Your task to perform on an android device: Go to sound settings Image 0: 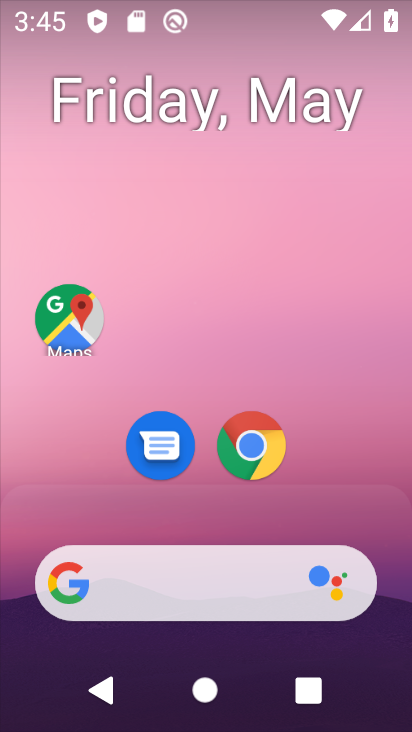
Step 0: drag from (228, 719) to (227, 259)
Your task to perform on an android device: Go to sound settings Image 1: 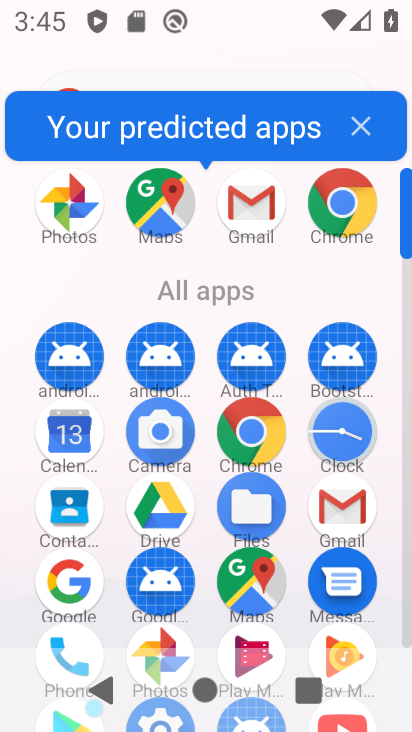
Step 1: drag from (205, 618) to (207, 265)
Your task to perform on an android device: Go to sound settings Image 2: 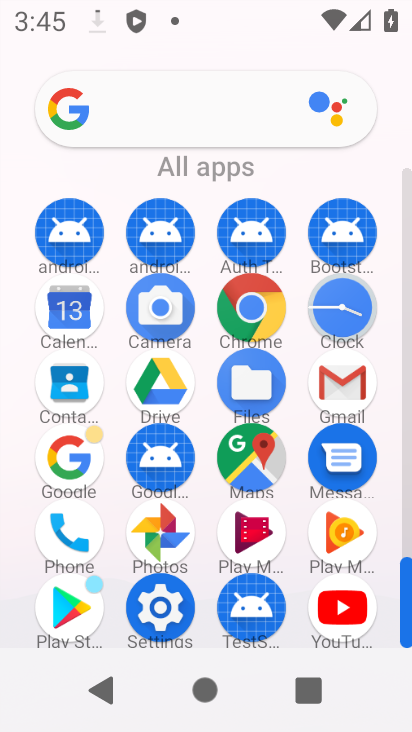
Step 2: click (164, 604)
Your task to perform on an android device: Go to sound settings Image 3: 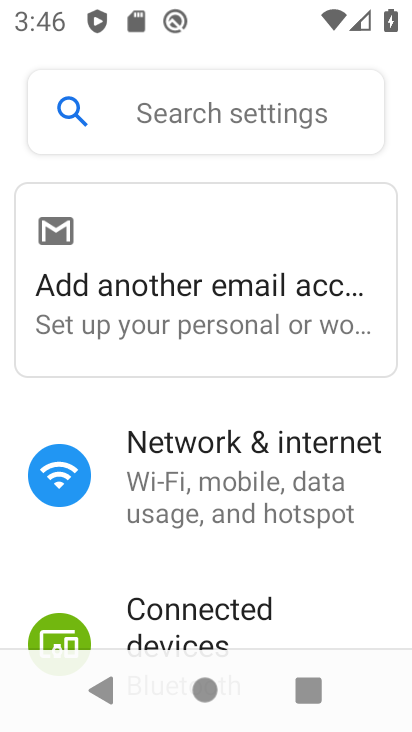
Step 3: drag from (301, 580) to (310, 343)
Your task to perform on an android device: Go to sound settings Image 4: 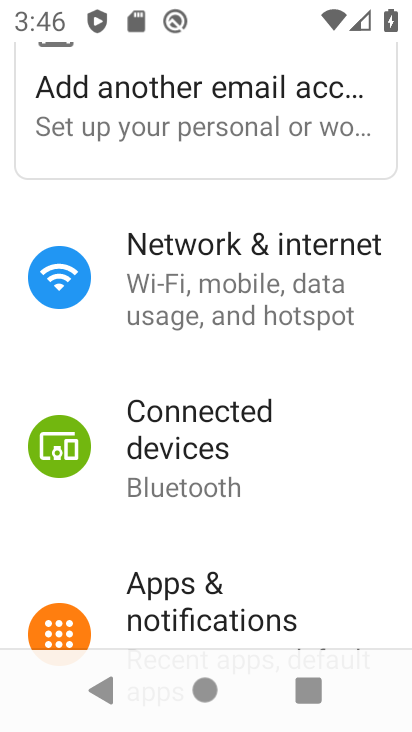
Step 4: drag from (292, 612) to (298, 313)
Your task to perform on an android device: Go to sound settings Image 5: 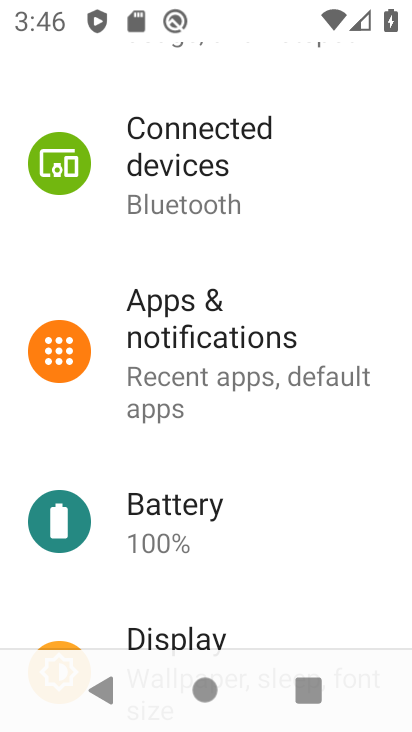
Step 5: drag from (278, 583) to (278, 241)
Your task to perform on an android device: Go to sound settings Image 6: 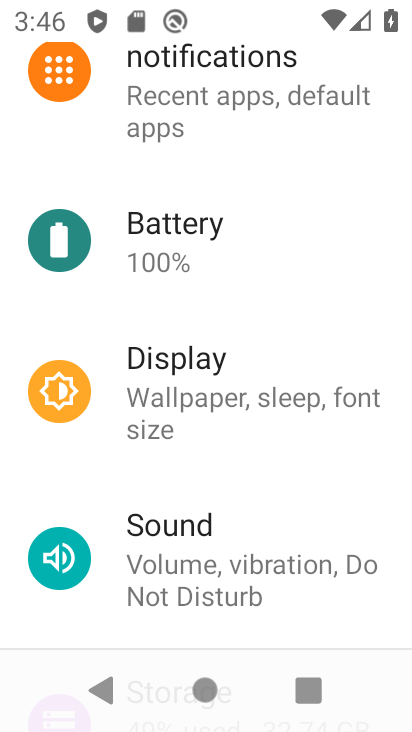
Step 6: click (193, 563)
Your task to perform on an android device: Go to sound settings Image 7: 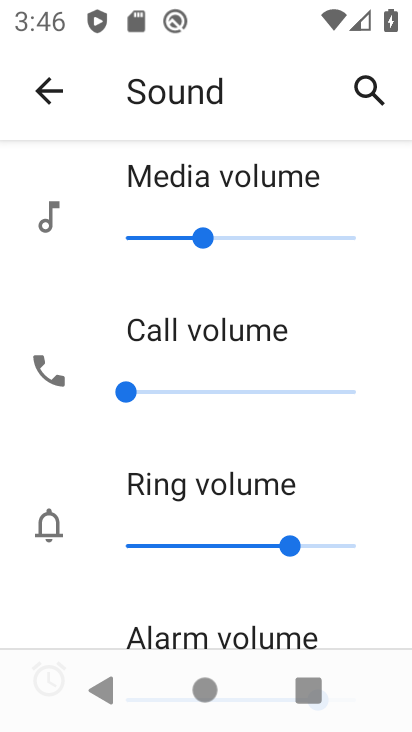
Step 7: task complete